Your task to perform on an android device: Open Wikipedia Image 0: 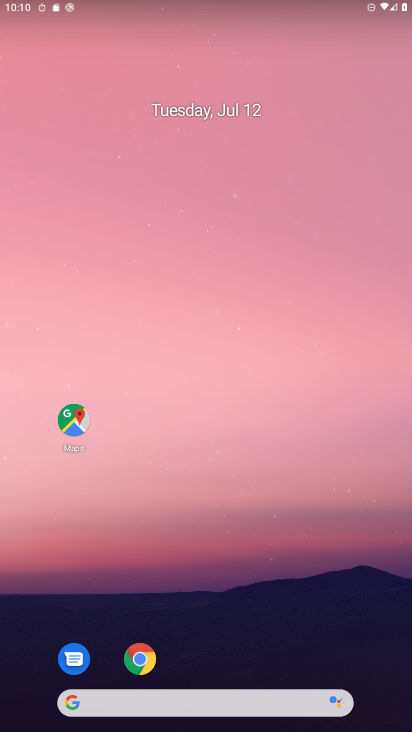
Step 0: click (130, 664)
Your task to perform on an android device: Open Wikipedia Image 1: 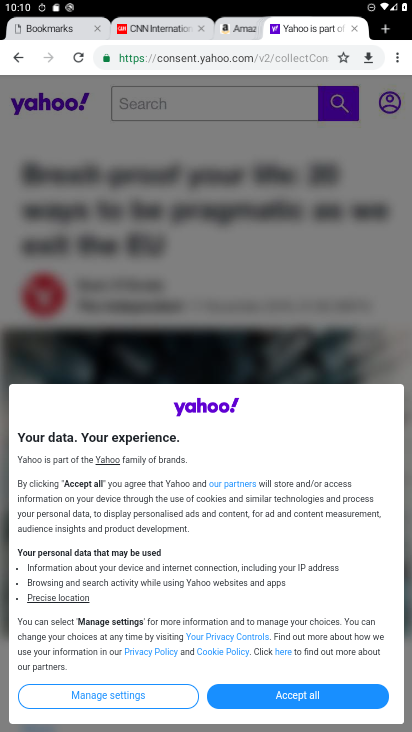
Step 1: click (396, 57)
Your task to perform on an android device: Open Wikipedia Image 2: 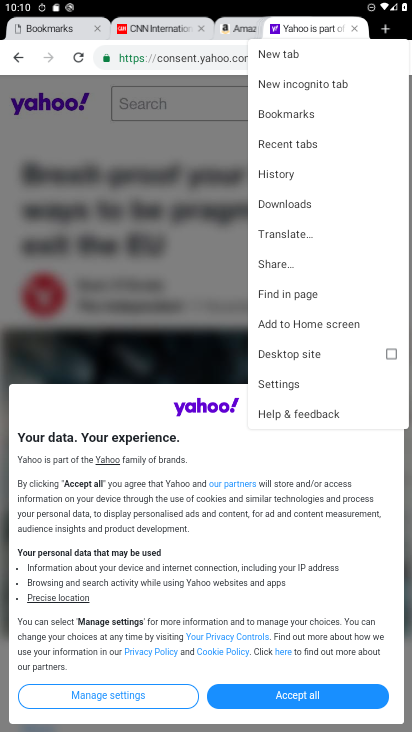
Step 2: click (271, 55)
Your task to perform on an android device: Open Wikipedia Image 3: 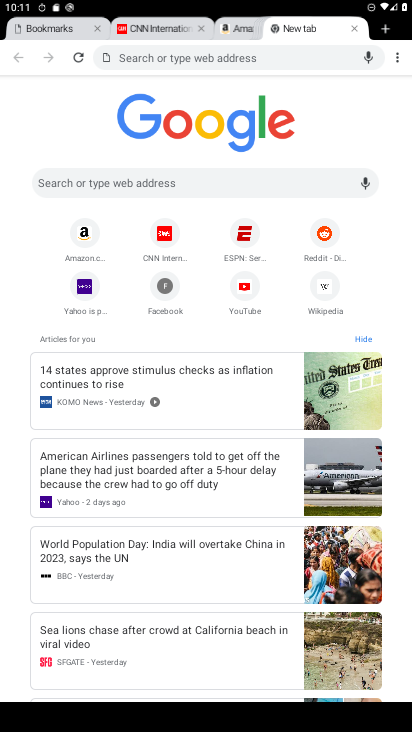
Step 3: click (326, 287)
Your task to perform on an android device: Open Wikipedia Image 4: 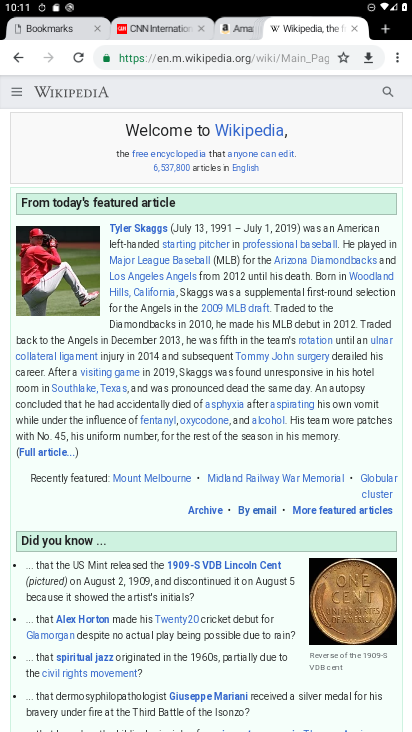
Step 4: task complete